Your task to perform on an android device: set an alarm Image 0: 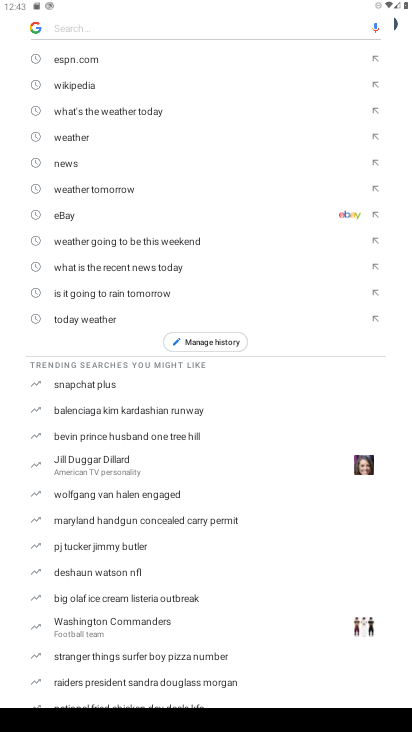
Step 0: press back button
Your task to perform on an android device: set an alarm Image 1: 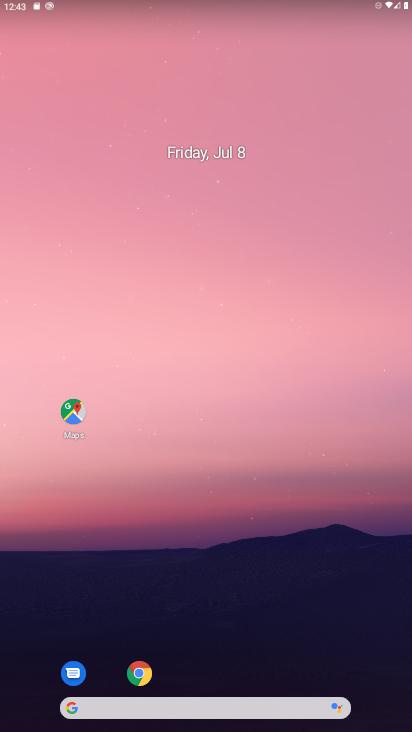
Step 1: drag from (360, 681) to (311, 129)
Your task to perform on an android device: set an alarm Image 2: 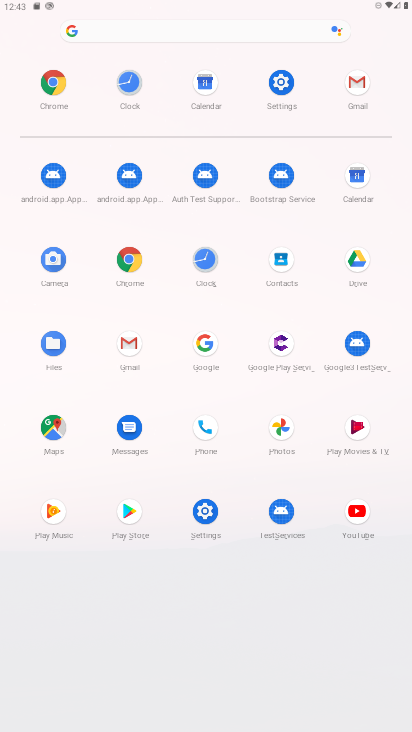
Step 2: click (196, 264)
Your task to perform on an android device: set an alarm Image 3: 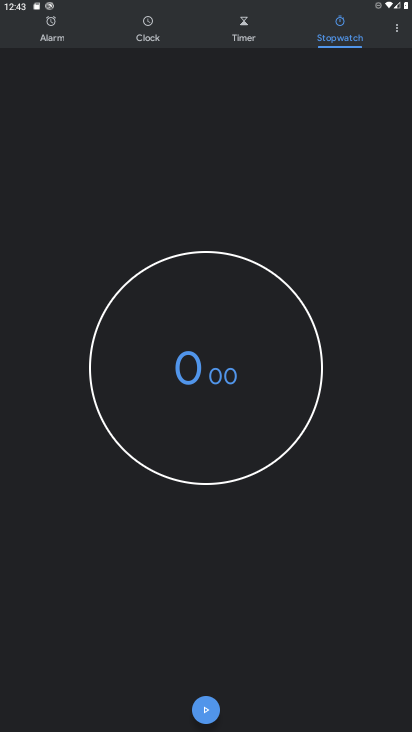
Step 3: click (58, 46)
Your task to perform on an android device: set an alarm Image 4: 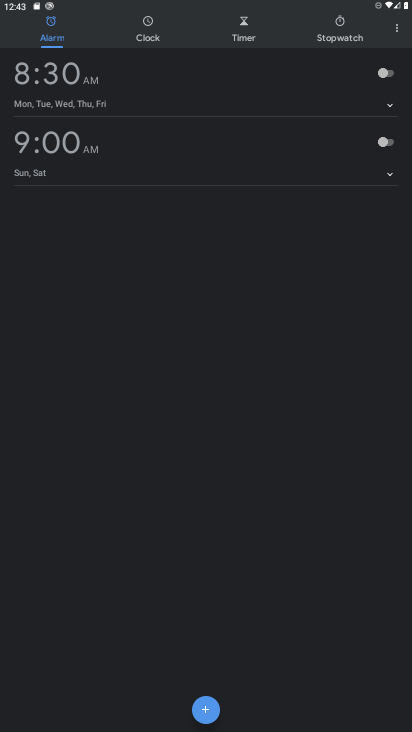
Step 4: click (393, 73)
Your task to perform on an android device: set an alarm Image 5: 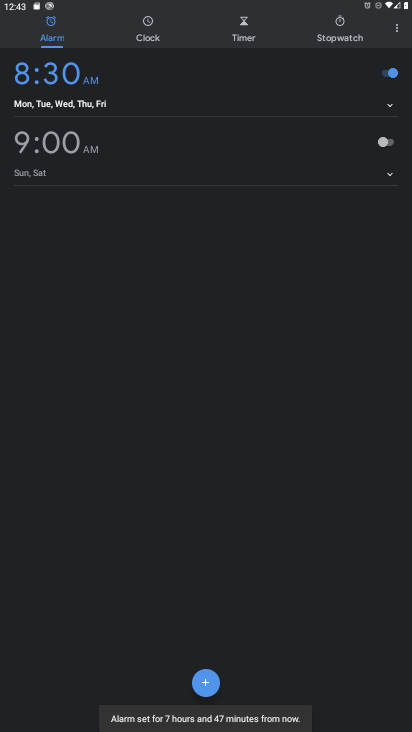
Step 5: task complete